Your task to perform on an android device: change the clock display to show seconds Image 0: 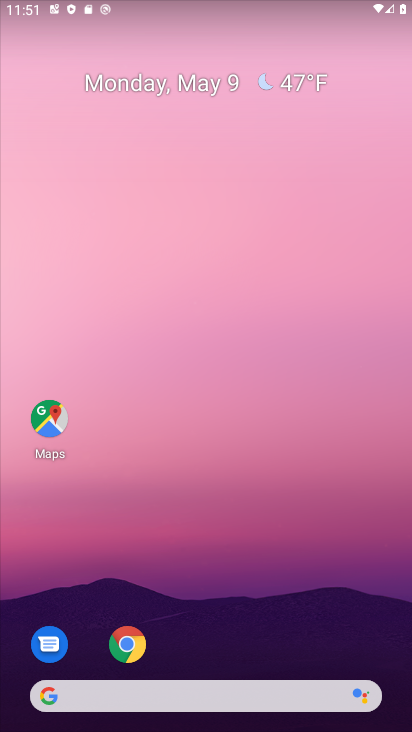
Step 0: drag from (59, 582) to (255, 111)
Your task to perform on an android device: change the clock display to show seconds Image 1: 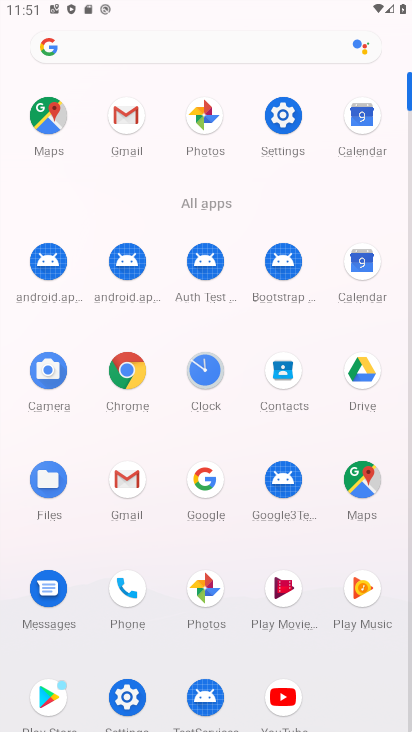
Step 1: click (208, 362)
Your task to perform on an android device: change the clock display to show seconds Image 2: 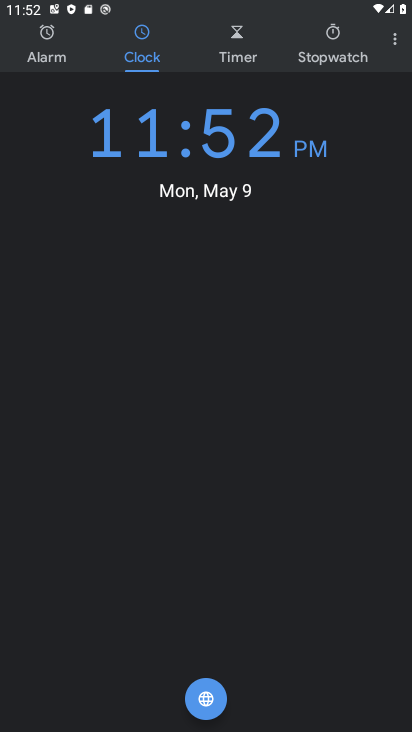
Step 2: click (390, 35)
Your task to perform on an android device: change the clock display to show seconds Image 3: 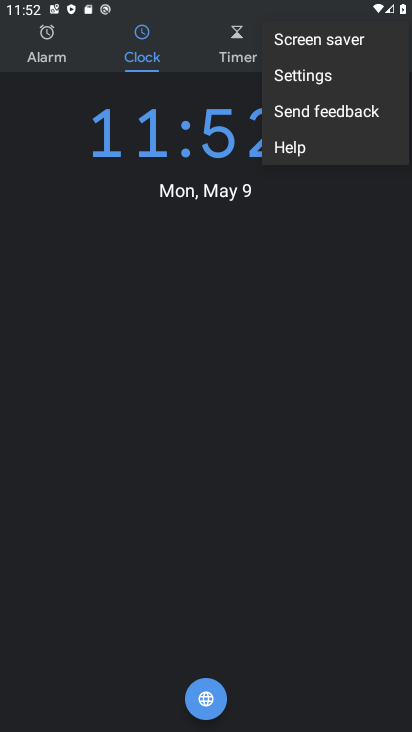
Step 3: click (356, 82)
Your task to perform on an android device: change the clock display to show seconds Image 4: 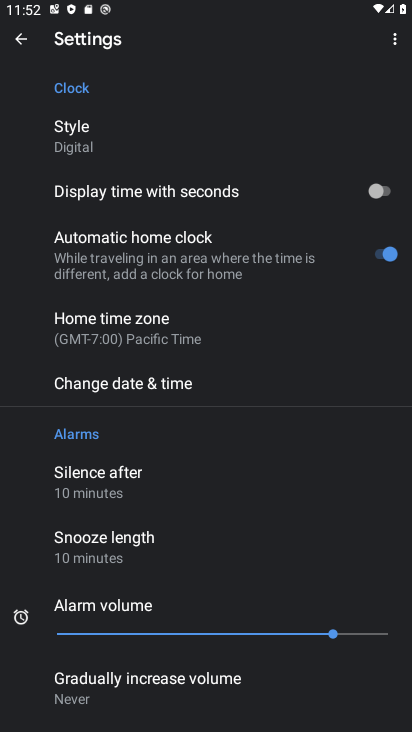
Step 4: drag from (82, 694) to (235, 241)
Your task to perform on an android device: change the clock display to show seconds Image 5: 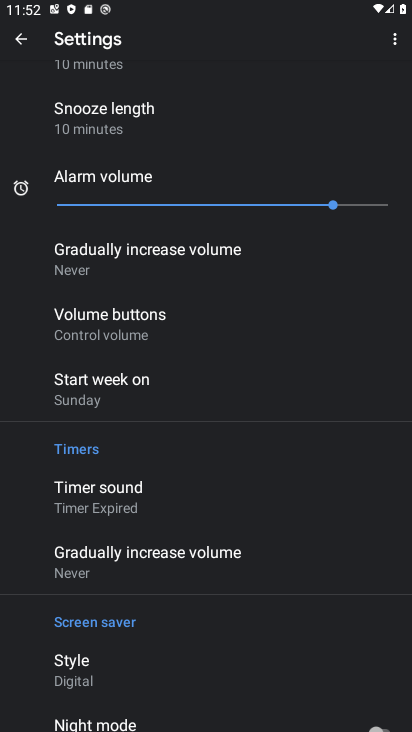
Step 5: drag from (126, 650) to (268, 223)
Your task to perform on an android device: change the clock display to show seconds Image 6: 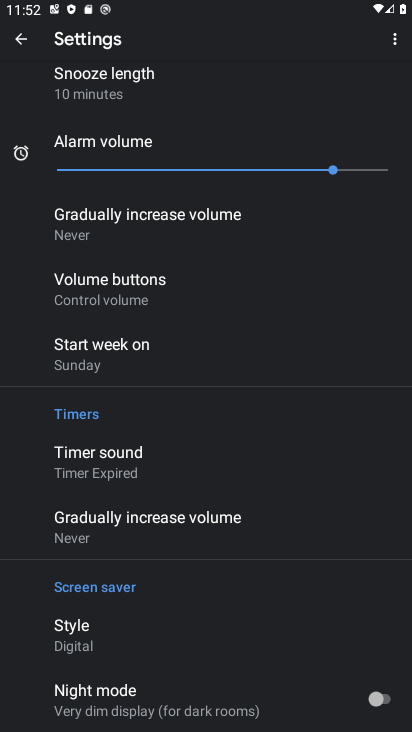
Step 6: drag from (172, 160) to (114, 598)
Your task to perform on an android device: change the clock display to show seconds Image 7: 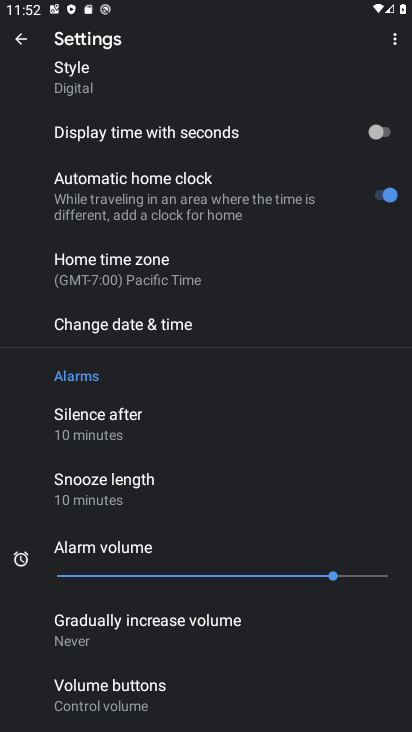
Step 7: drag from (174, 77) to (117, 657)
Your task to perform on an android device: change the clock display to show seconds Image 8: 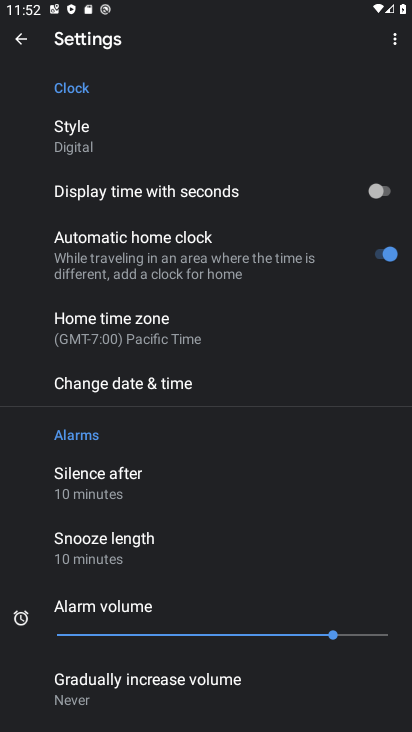
Step 8: click (378, 192)
Your task to perform on an android device: change the clock display to show seconds Image 9: 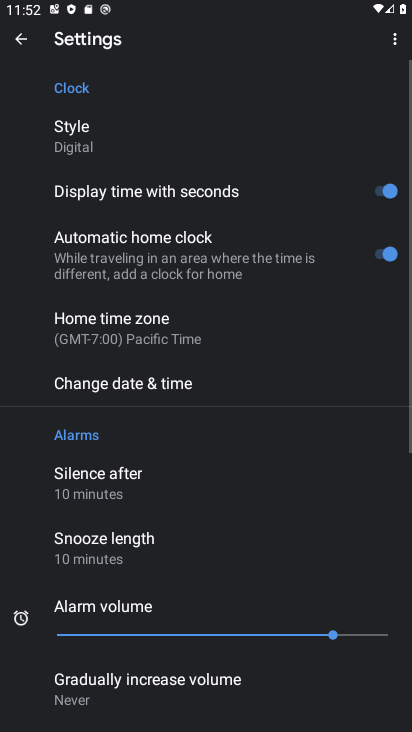
Step 9: task complete